Your task to perform on an android device: change keyboard looks Image 0: 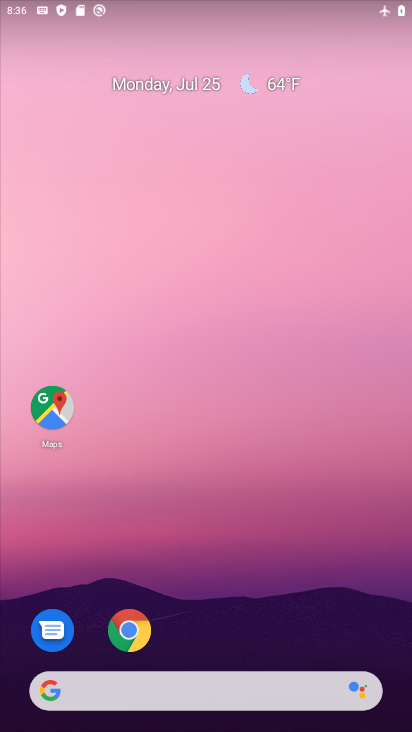
Step 0: drag from (380, 635) to (330, 83)
Your task to perform on an android device: change keyboard looks Image 1: 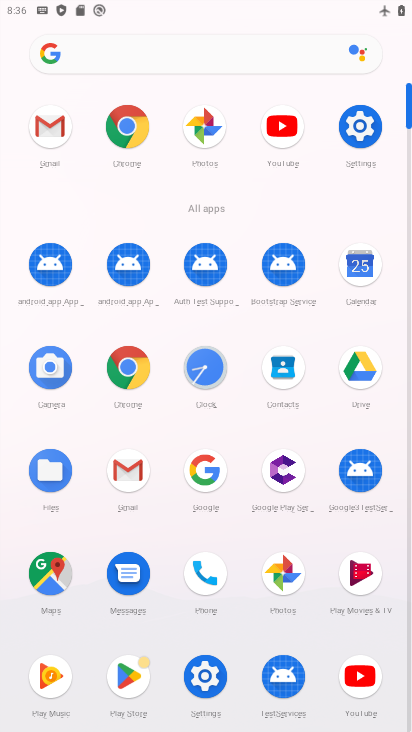
Step 1: click (205, 673)
Your task to perform on an android device: change keyboard looks Image 2: 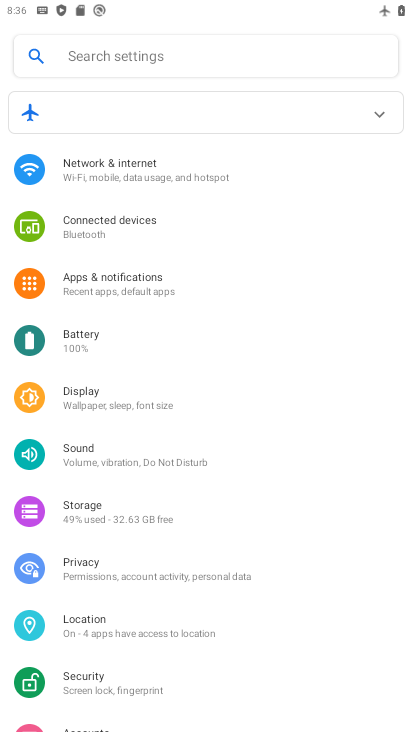
Step 2: drag from (242, 670) to (231, 185)
Your task to perform on an android device: change keyboard looks Image 3: 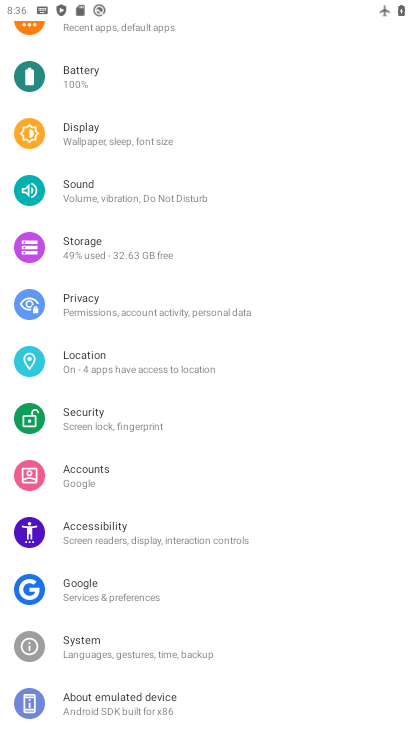
Step 3: click (101, 643)
Your task to perform on an android device: change keyboard looks Image 4: 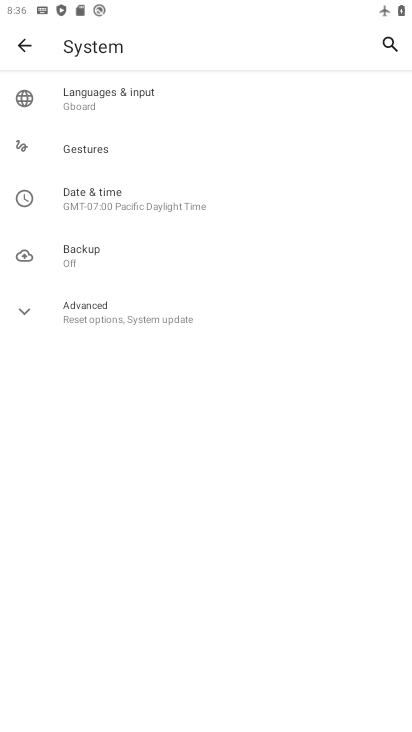
Step 4: click (84, 103)
Your task to perform on an android device: change keyboard looks Image 5: 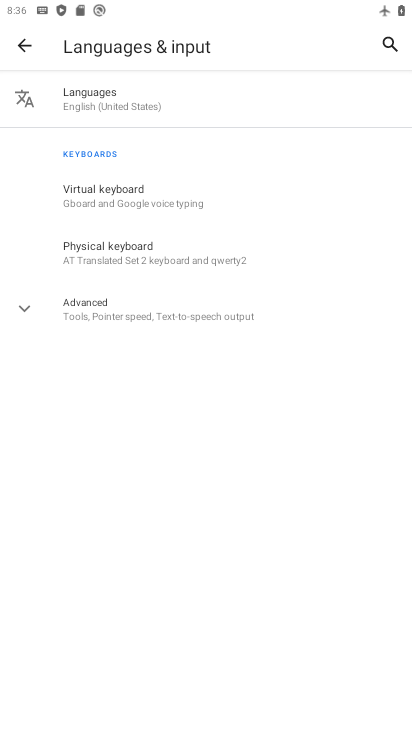
Step 5: click (98, 250)
Your task to perform on an android device: change keyboard looks Image 6: 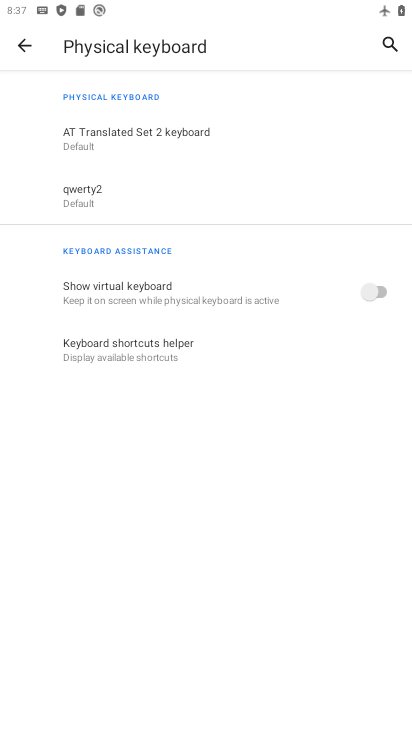
Step 6: click (77, 194)
Your task to perform on an android device: change keyboard looks Image 7: 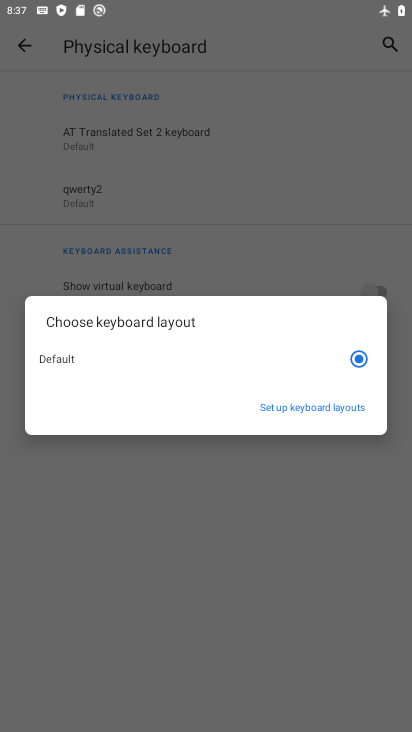
Step 7: click (334, 407)
Your task to perform on an android device: change keyboard looks Image 8: 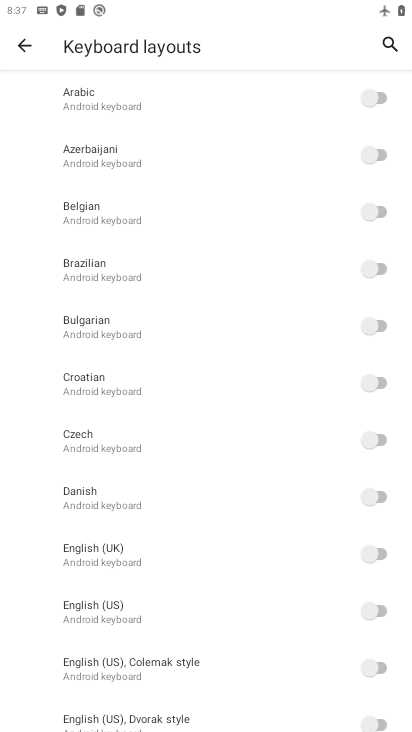
Step 8: click (386, 498)
Your task to perform on an android device: change keyboard looks Image 9: 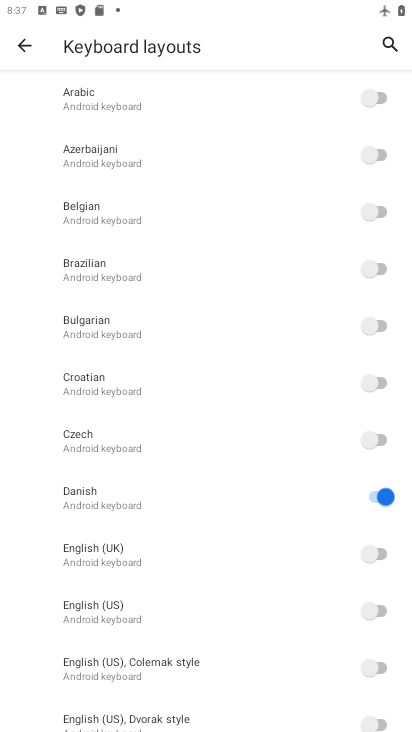
Step 9: task complete